Your task to perform on an android device: Go to Google maps Image 0: 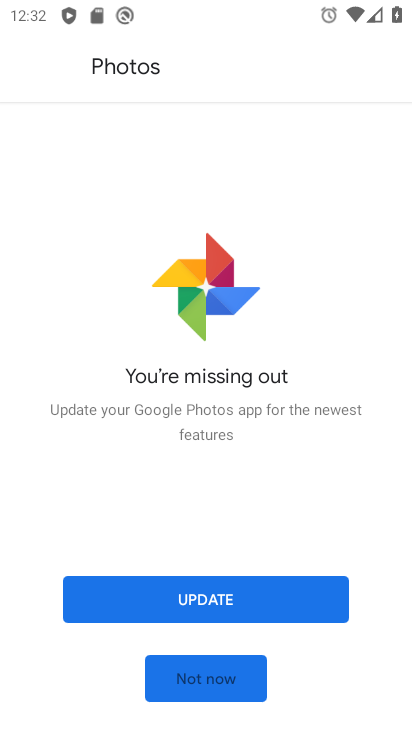
Step 0: click (235, 679)
Your task to perform on an android device: Go to Google maps Image 1: 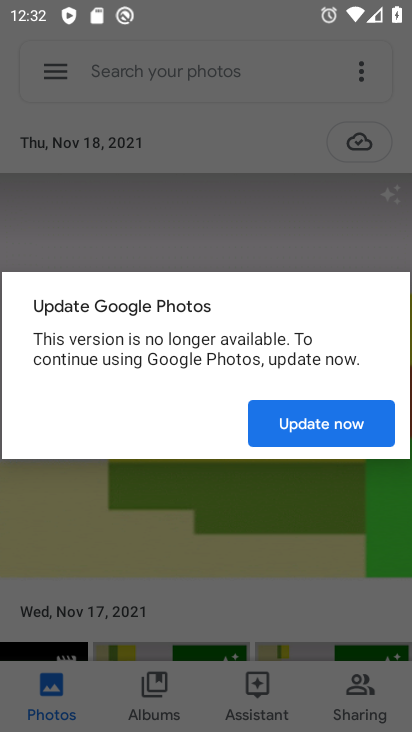
Step 1: press home button
Your task to perform on an android device: Go to Google maps Image 2: 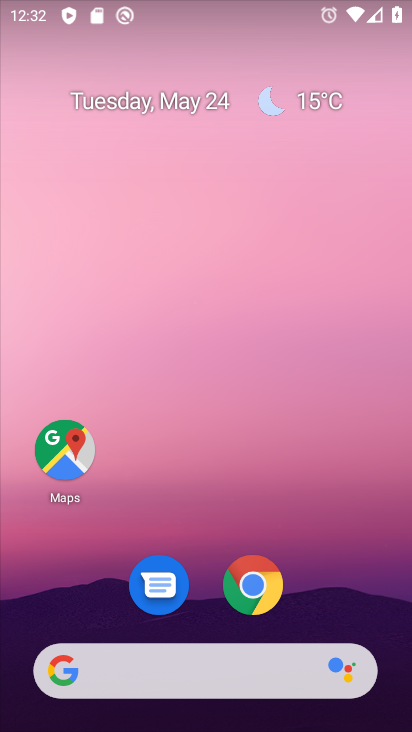
Step 2: click (62, 453)
Your task to perform on an android device: Go to Google maps Image 3: 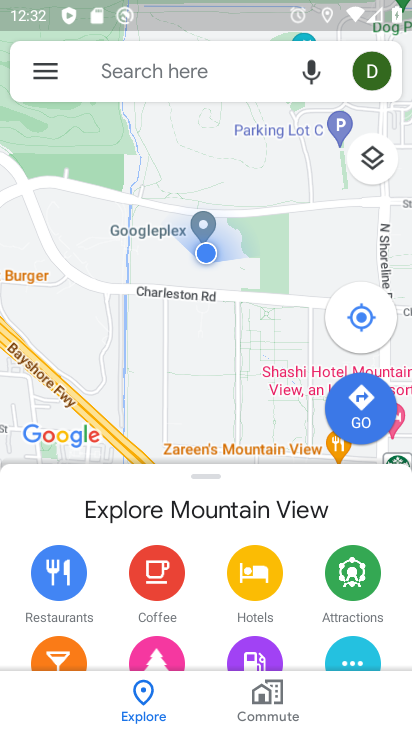
Step 3: task complete